Your task to perform on an android device: Open network settings Image 0: 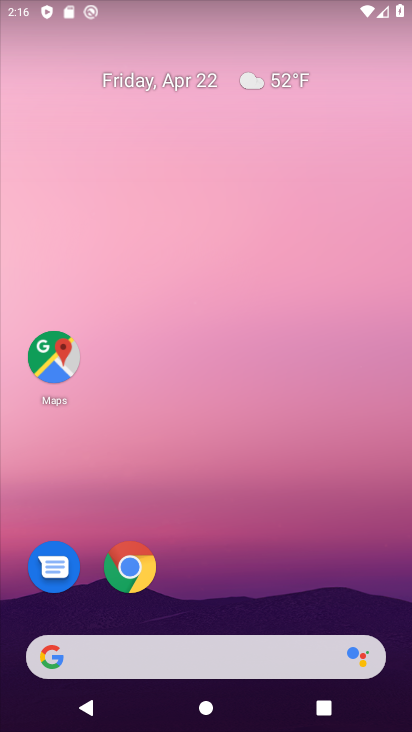
Step 0: drag from (247, 197) to (218, 23)
Your task to perform on an android device: Open network settings Image 1: 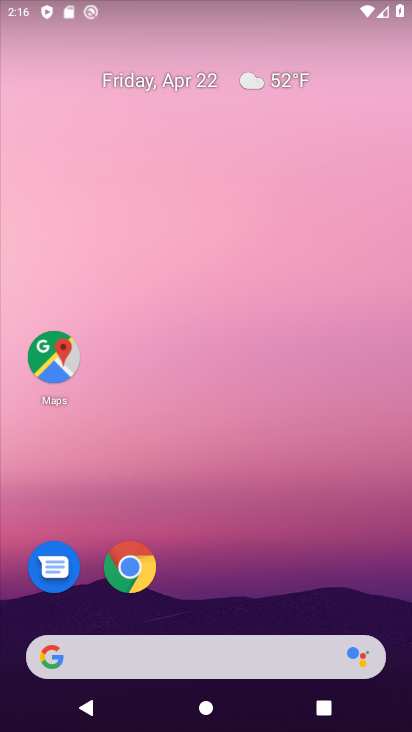
Step 1: drag from (282, 168) to (286, 36)
Your task to perform on an android device: Open network settings Image 2: 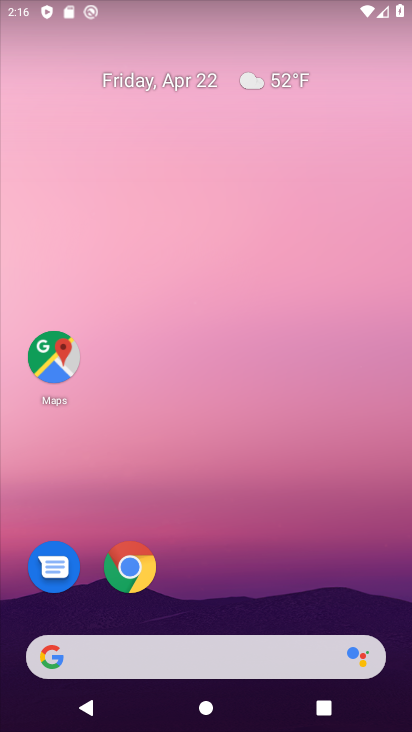
Step 2: drag from (253, 366) to (245, 23)
Your task to perform on an android device: Open network settings Image 3: 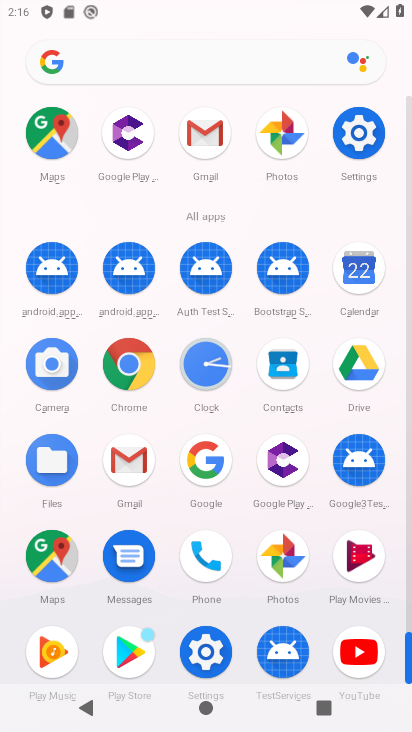
Step 3: click (366, 128)
Your task to perform on an android device: Open network settings Image 4: 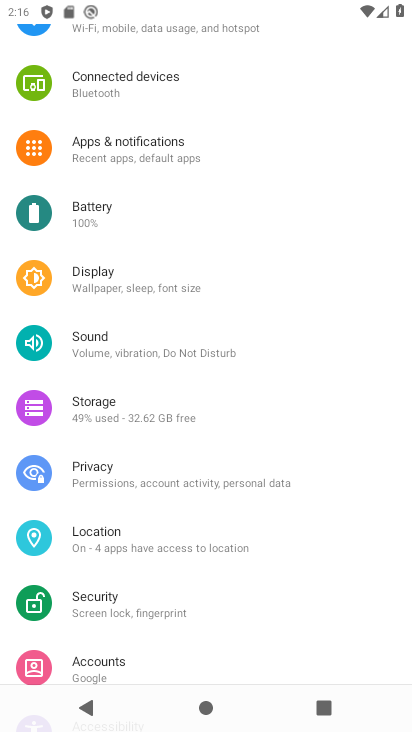
Step 4: drag from (225, 110) to (214, 508)
Your task to perform on an android device: Open network settings Image 5: 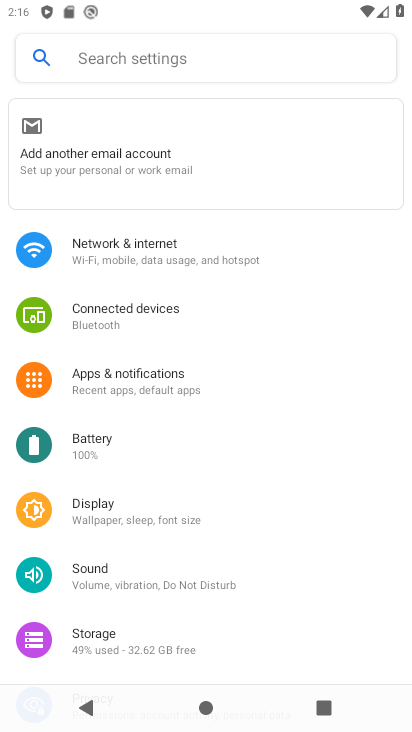
Step 5: click (220, 240)
Your task to perform on an android device: Open network settings Image 6: 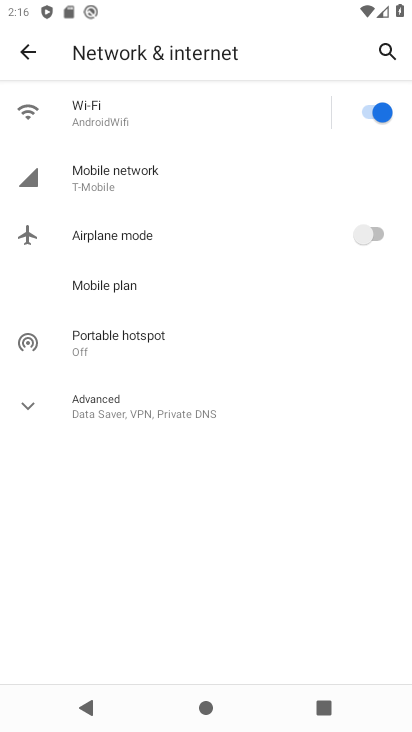
Step 6: task complete